Your task to perform on an android device: delete a single message in the gmail app Image 0: 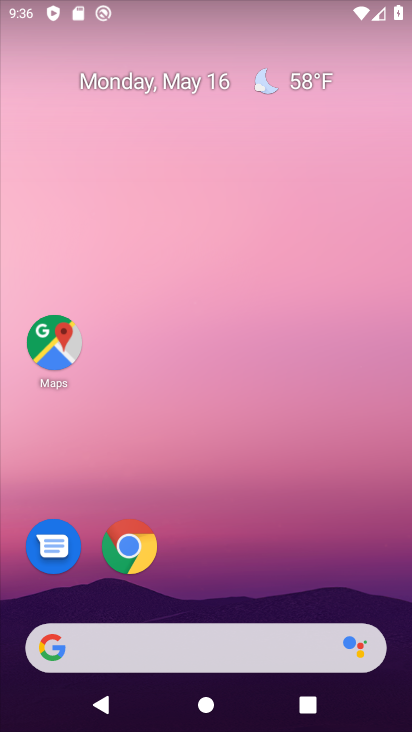
Step 0: drag from (270, 580) to (189, 307)
Your task to perform on an android device: delete a single message in the gmail app Image 1: 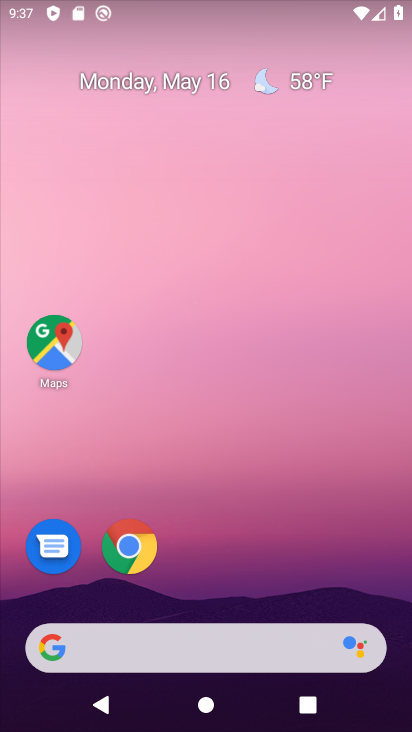
Step 1: drag from (226, 543) to (195, 230)
Your task to perform on an android device: delete a single message in the gmail app Image 2: 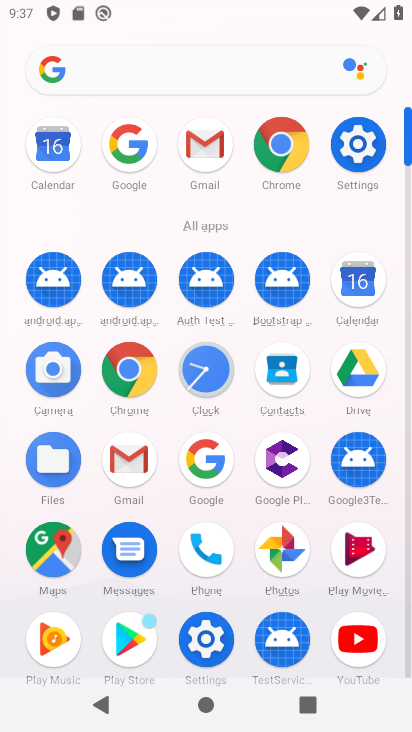
Step 2: click (204, 141)
Your task to perform on an android device: delete a single message in the gmail app Image 3: 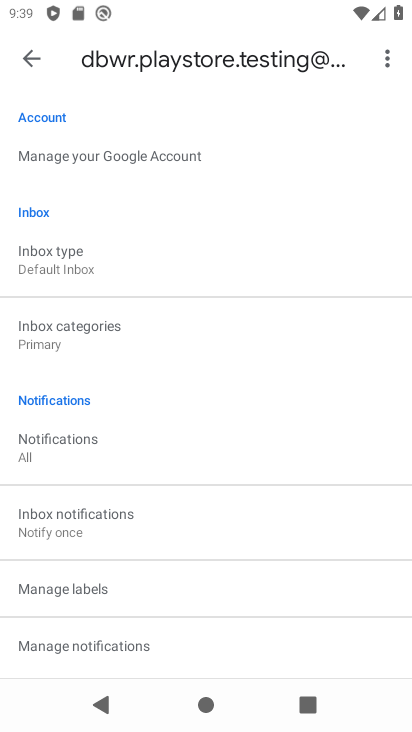
Step 3: press back button
Your task to perform on an android device: delete a single message in the gmail app Image 4: 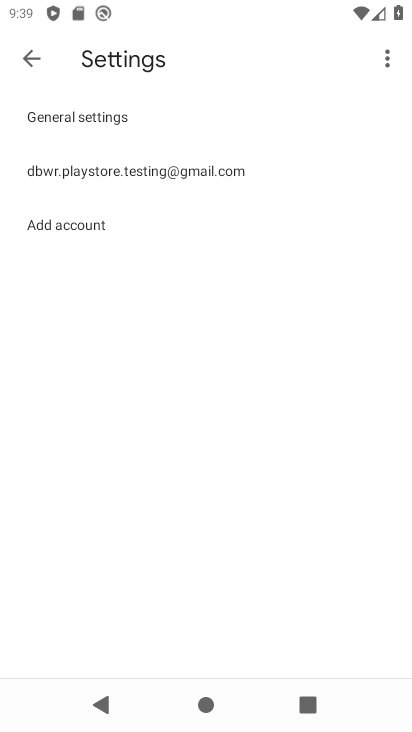
Step 4: press back button
Your task to perform on an android device: delete a single message in the gmail app Image 5: 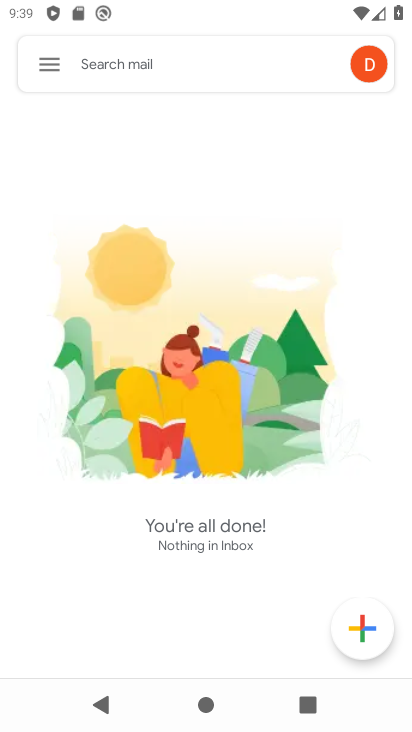
Step 5: click (47, 53)
Your task to perform on an android device: delete a single message in the gmail app Image 6: 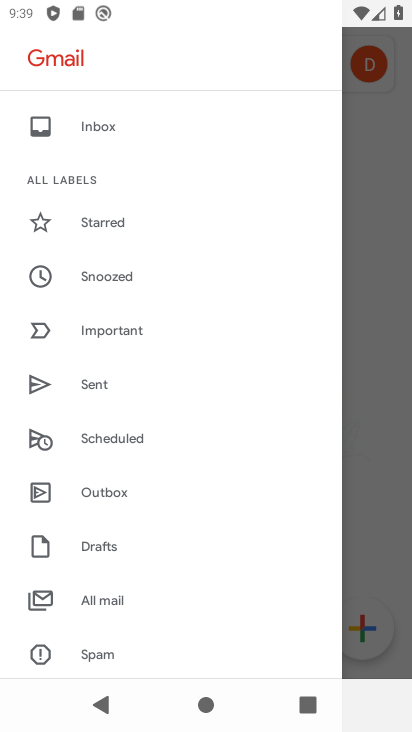
Step 6: drag from (106, 611) to (165, 535)
Your task to perform on an android device: delete a single message in the gmail app Image 7: 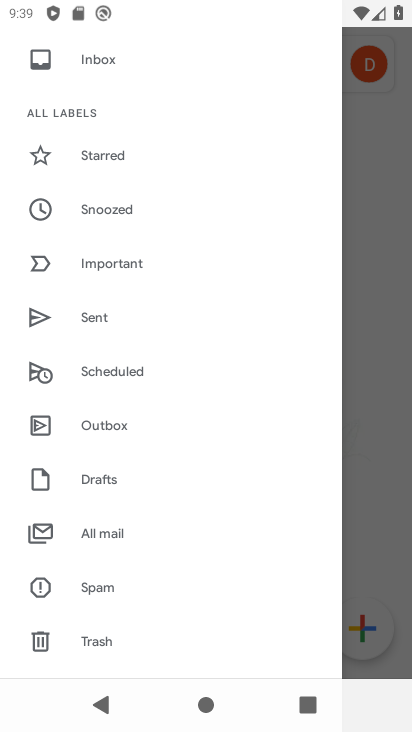
Step 7: click (108, 538)
Your task to perform on an android device: delete a single message in the gmail app Image 8: 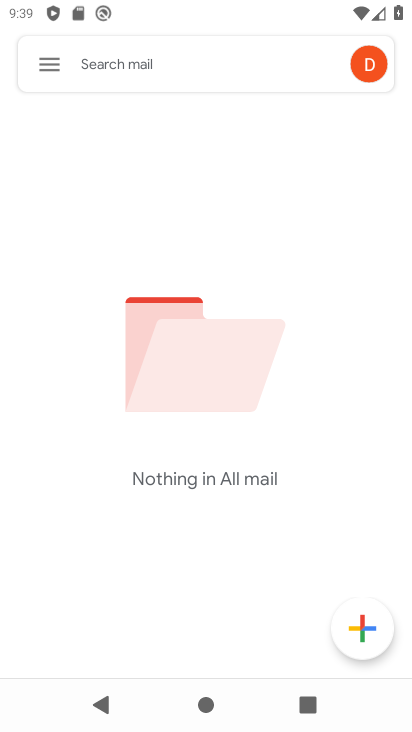
Step 8: task complete